Your task to perform on an android device: open sync settings in chrome Image 0: 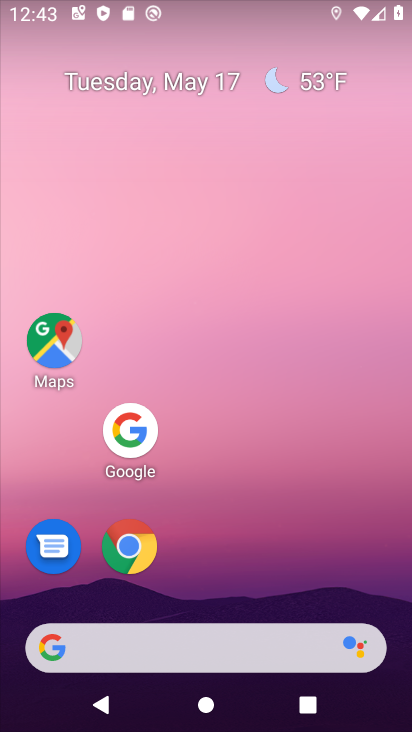
Step 0: click (120, 549)
Your task to perform on an android device: open sync settings in chrome Image 1: 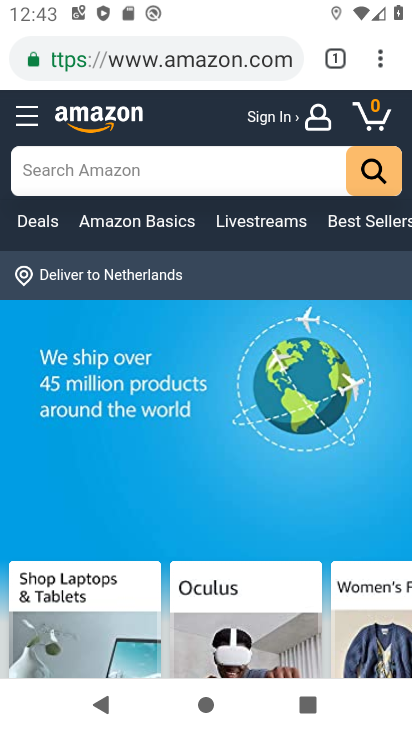
Step 1: click (369, 53)
Your task to perform on an android device: open sync settings in chrome Image 2: 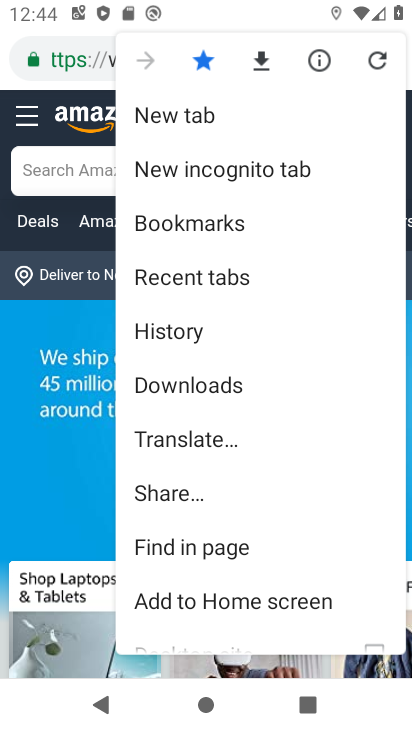
Step 2: drag from (237, 477) to (291, 177)
Your task to perform on an android device: open sync settings in chrome Image 3: 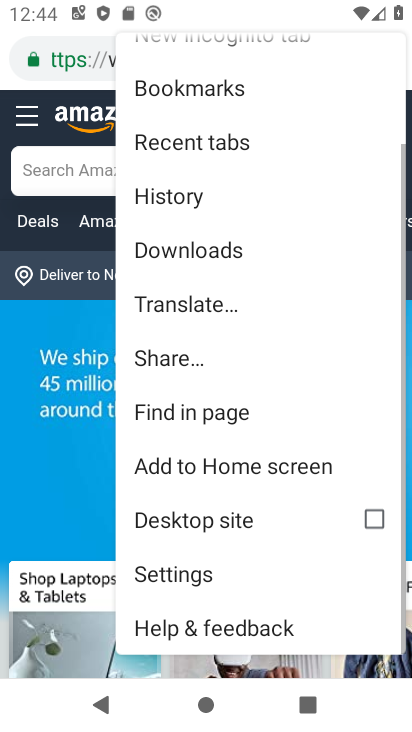
Step 3: click (193, 566)
Your task to perform on an android device: open sync settings in chrome Image 4: 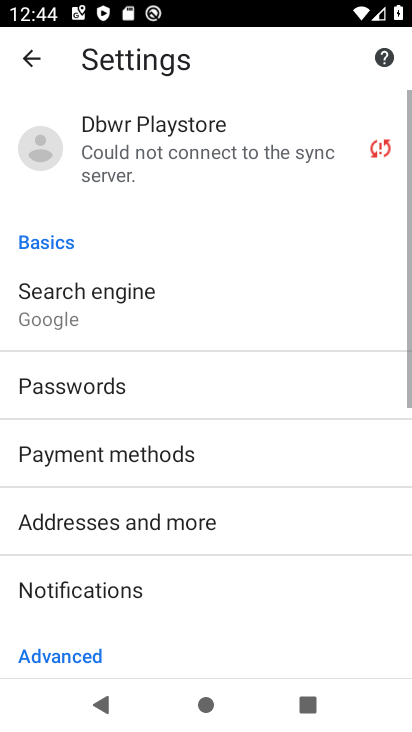
Step 4: drag from (193, 566) to (257, 136)
Your task to perform on an android device: open sync settings in chrome Image 5: 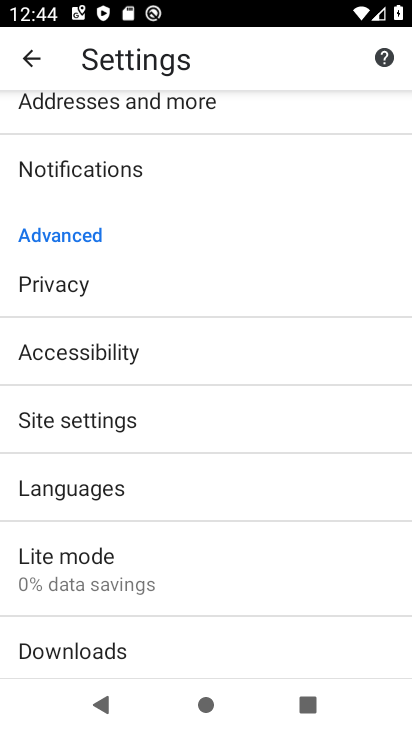
Step 5: drag from (115, 496) to (129, 346)
Your task to perform on an android device: open sync settings in chrome Image 6: 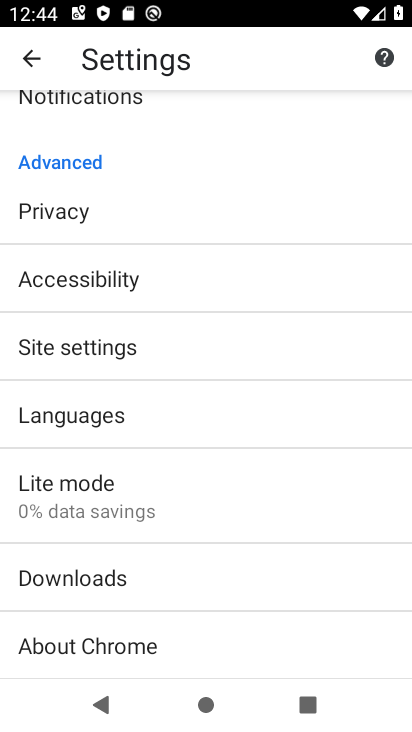
Step 6: click (123, 343)
Your task to perform on an android device: open sync settings in chrome Image 7: 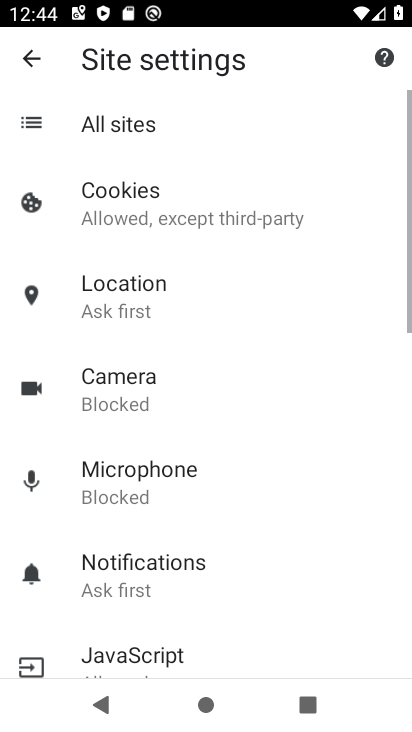
Step 7: drag from (217, 553) to (225, 139)
Your task to perform on an android device: open sync settings in chrome Image 8: 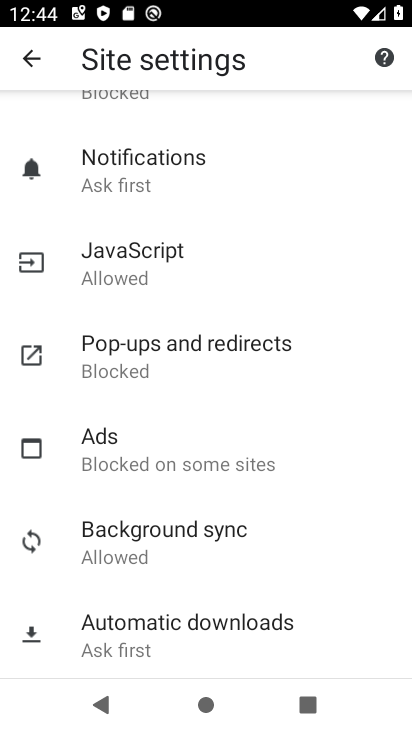
Step 8: click (157, 533)
Your task to perform on an android device: open sync settings in chrome Image 9: 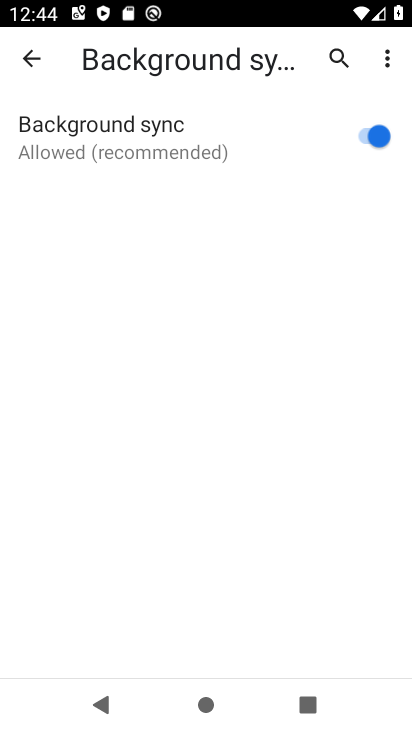
Step 9: task complete